Your task to perform on an android device: find which apps use the phone's location Image 0: 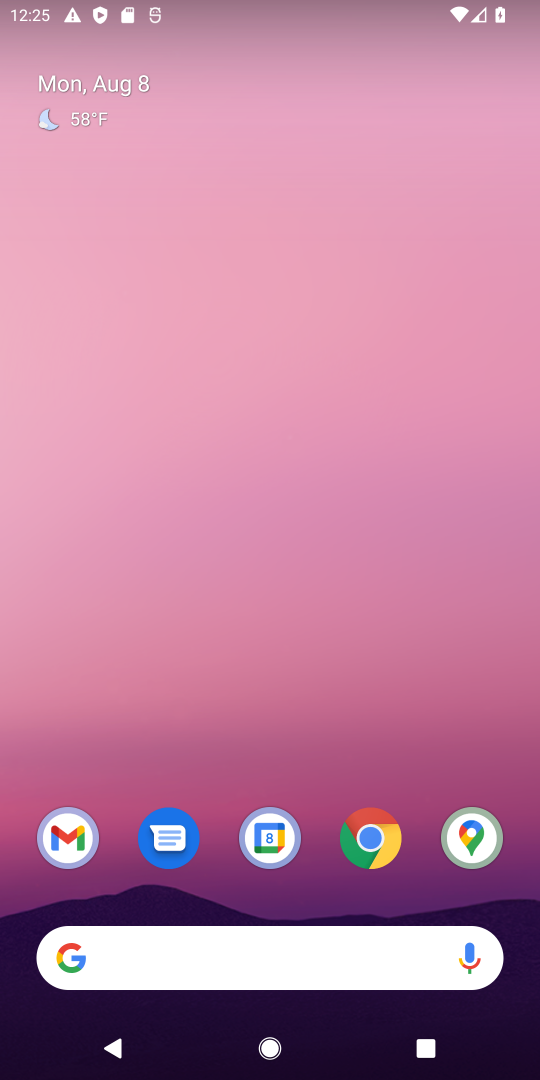
Step 0: press home button
Your task to perform on an android device: find which apps use the phone's location Image 1: 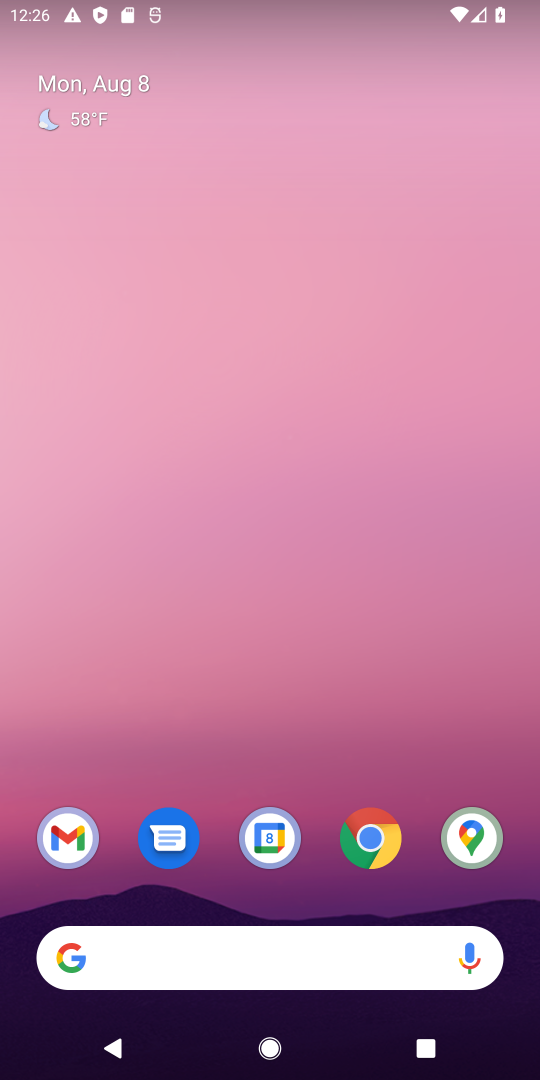
Step 1: drag from (214, 882) to (204, 199)
Your task to perform on an android device: find which apps use the phone's location Image 2: 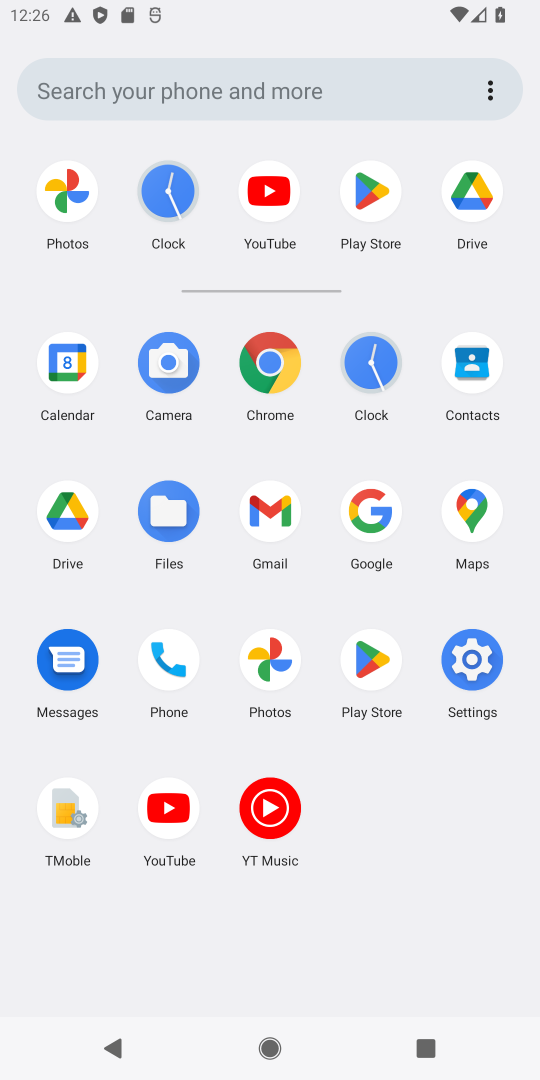
Step 2: click (470, 673)
Your task to perform on an android device: find which apps use the phone's location Image 3: 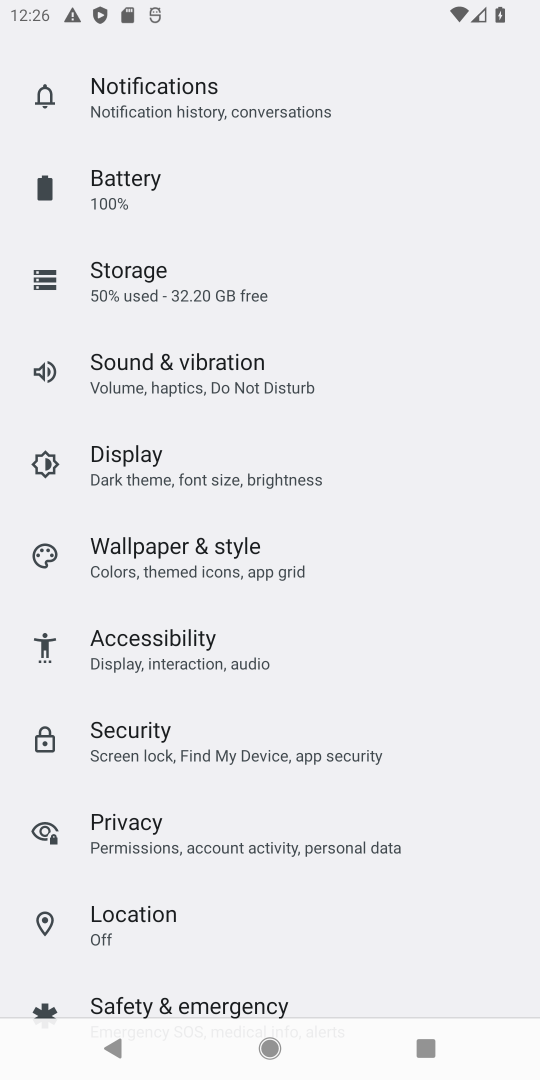
Step 3: click (105, 928)
Your task to perform on an android device: find which apps use the phone's location Image 4: 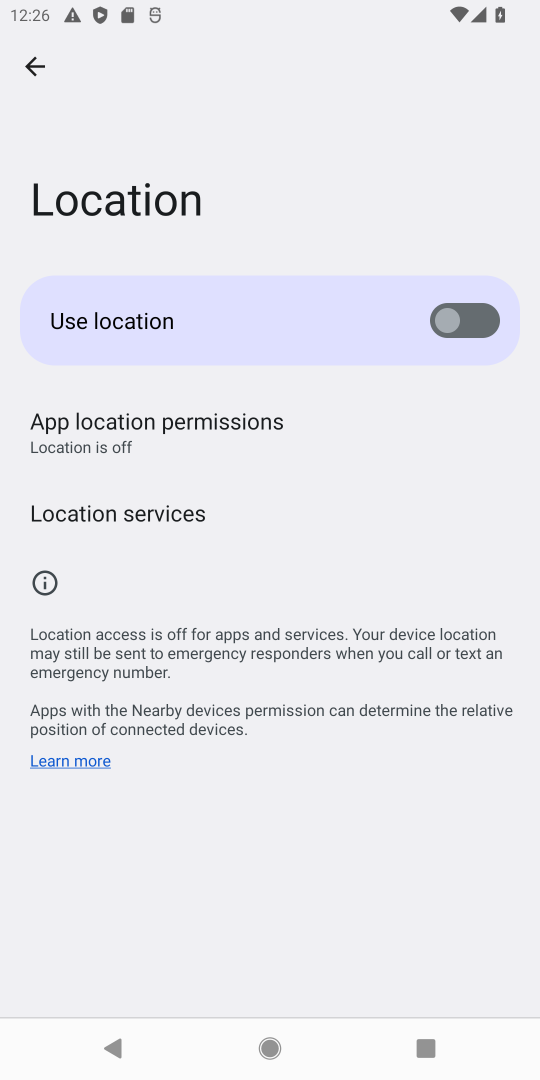
Step 4: click (152, 434)
Your task to perform on an android device: find which apps use the phone's location Image 5: 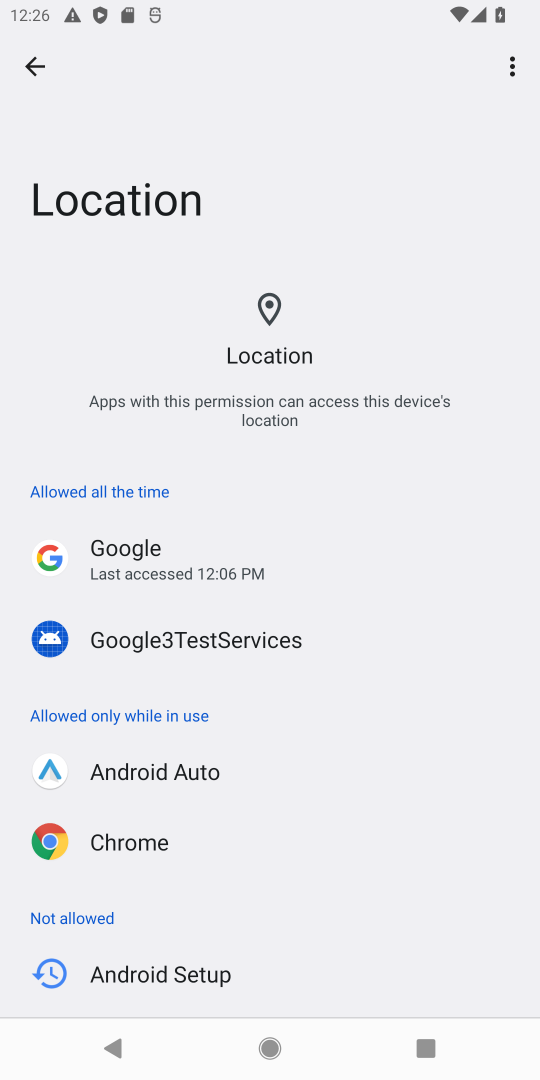
Step 5: task complete